Your task to perform on an android device: toggle show notifications on the lock screen Image 0: 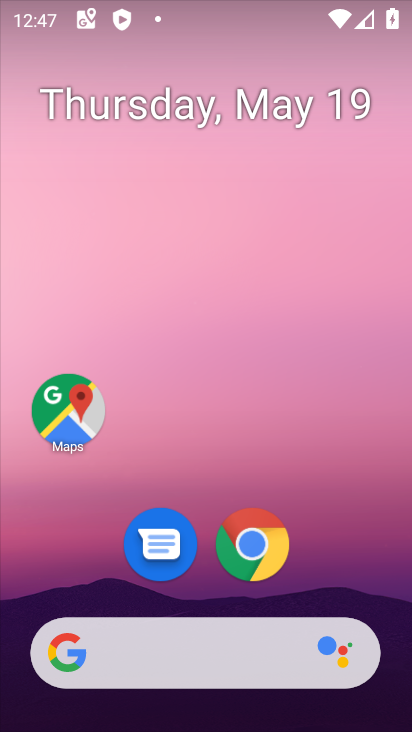
Step 0: drag from (267, 630) to (305, 136)
Your task to perform on an android device: toggle show notifications on the lock screen Image 1: 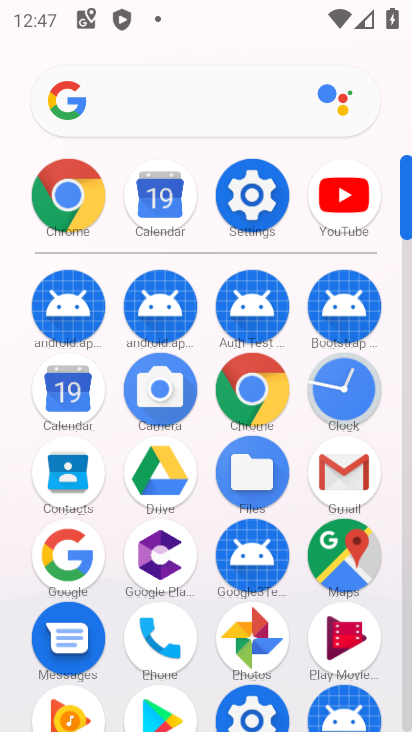
Step 1: click (269, 214)
Your task to perform on an android device: toggle show notifications on the lock screen Image 2: 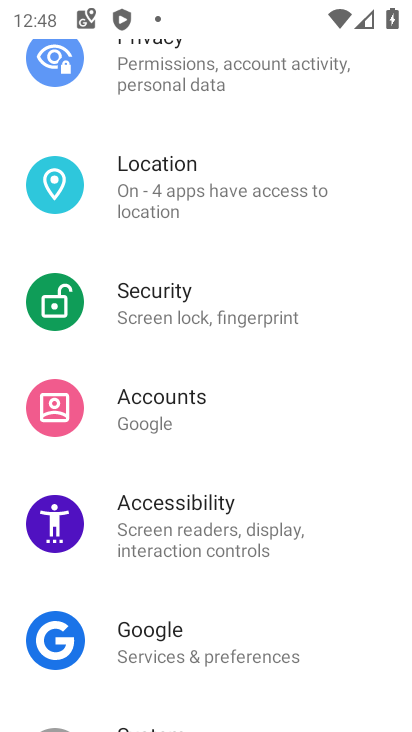
Step 2: drag from (122, 121) to (86, 727)
Your task to perform on an android device: toggle show notifications on the lock screen Image 3: 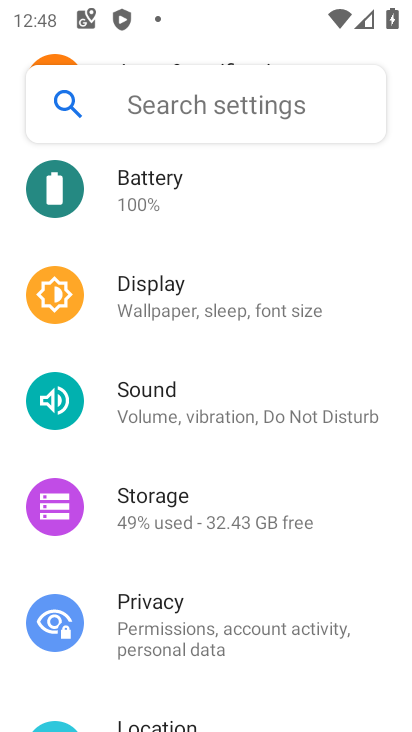
Step 3: drag from (207, 361) to (136, 689)
Your task to perform on an android device: toggle show notifications on the lock screen Image 4: 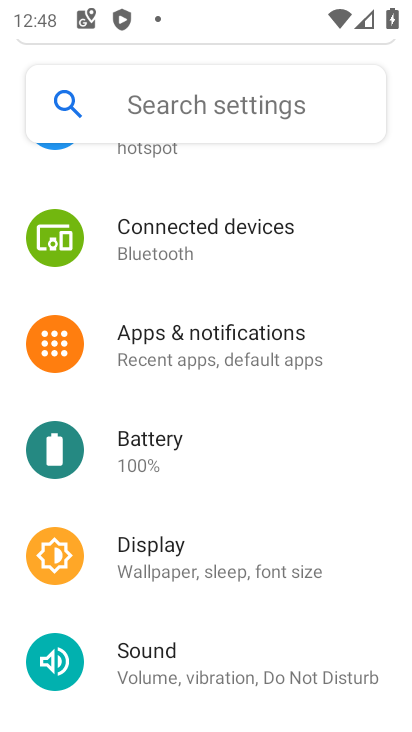
Step 4: drag from (214, 341) to (178, 526)
Your task to perform on an android device: toggle show notifications on the lock screen Image 5: 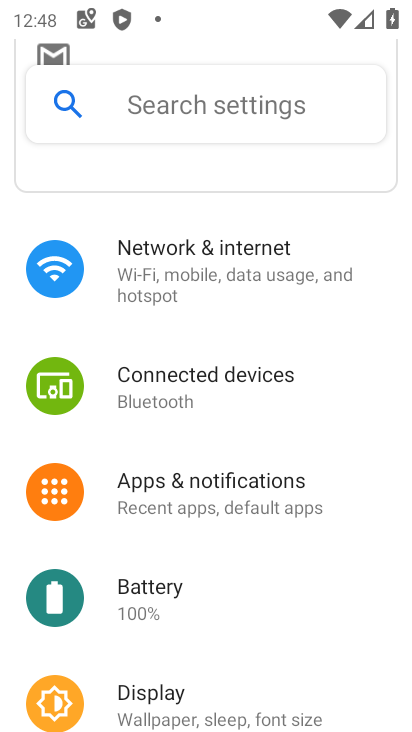
Step 5: click (179, 507)
Your task to perform on an android device: toggle show notifications on the lock screen Image 6: 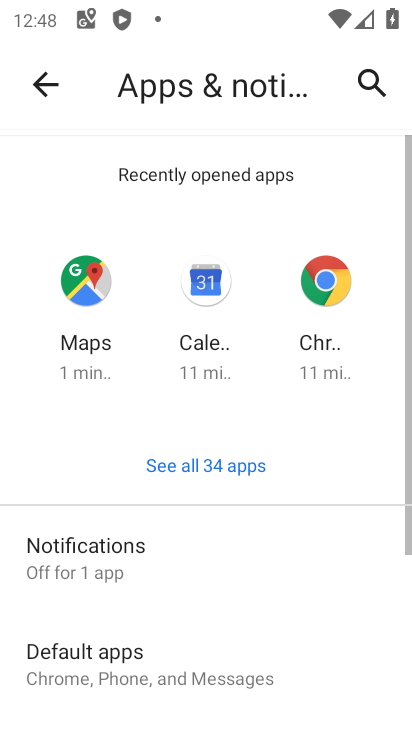
Step 6: drag from (210, 622) to (235, 303)
Your task to perform on an android device: toggle show notifications on the lock screen Image 7: 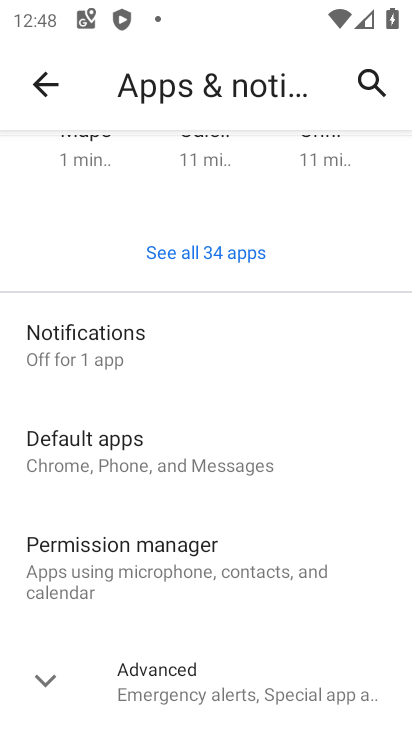
Step 7: click (114, 345)
Your task to perform on an android device: toggle show notifications on the lock screen Image 8: 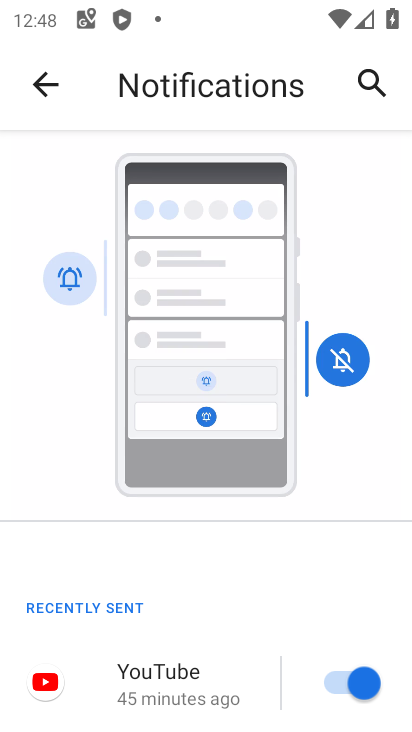
Step 8: drag from (156, 581) to (326, 165)
Your task to perform on an android device: toggle show notifications on the lock screen Image 9: 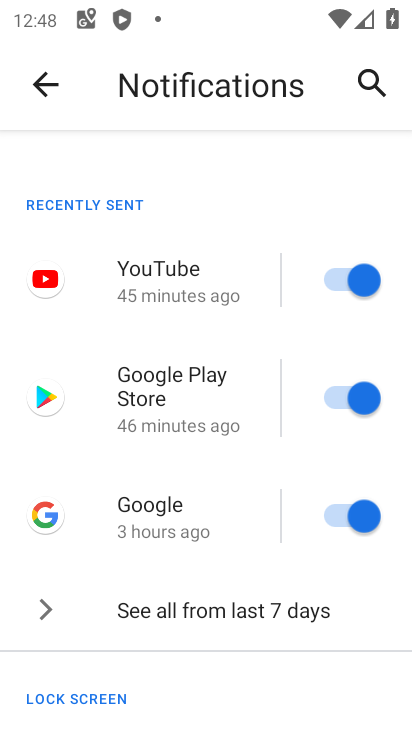
Step 9: drag from (239, 626) to (236, 208)
Your task to perform on an android device: toggle show notifications on the lock screen Image 10: 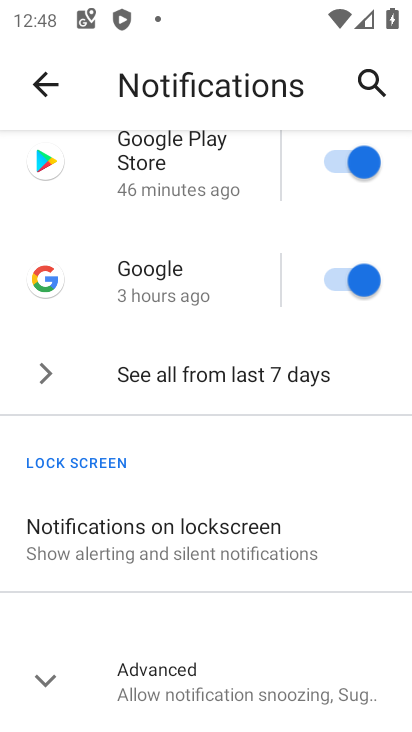
Step 10: drag from (153, 591) to (186, 252)
Your task to perform on an android device: toggle show notifications on the lock screen Image 11: 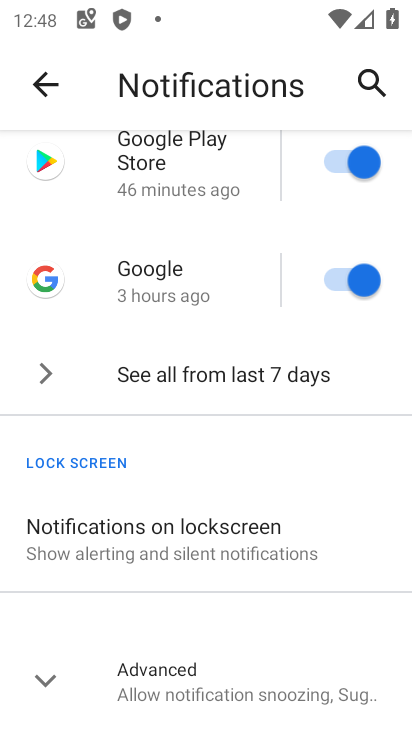
Step 11: click (135, 530)
Your task to perform on an android device: toggle show notifications on the lock screen Image 12: 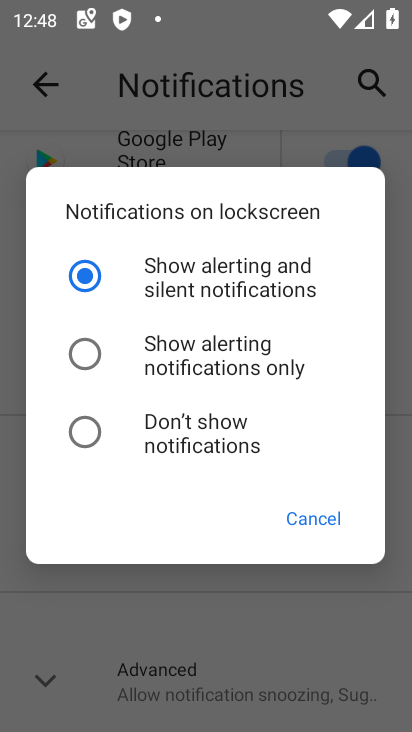
Step 12: click (88, 429)
Your task to perform on an android device: toggle show notifications on the lock screen Image 13: 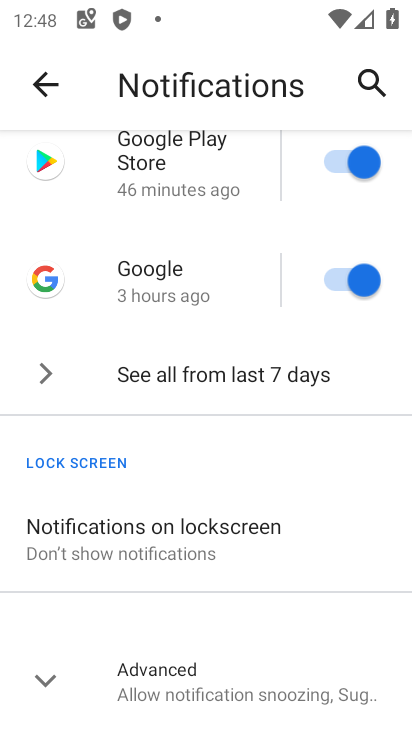
Step 13: click (398, 283)
Your task to perform on an android device: toggle show notifications on the lock screen Image 14: 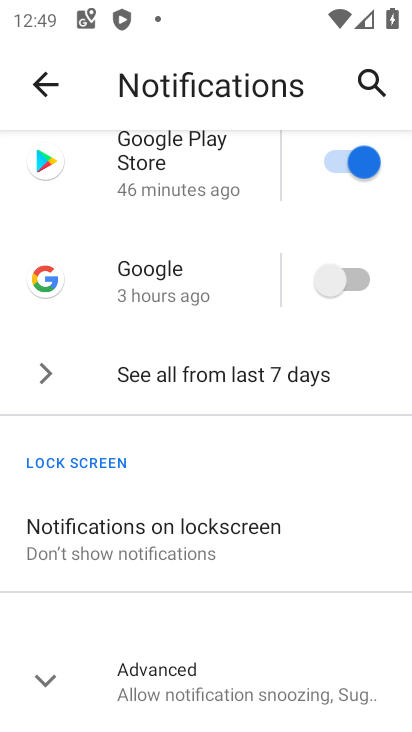
Step 14: task complete